Your task to perform on an android device: Open Google Maps Image 0: 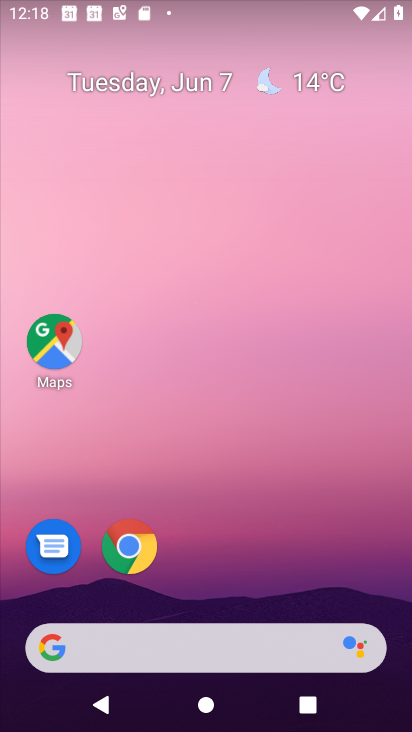
Step 0: click (77, 336)
Your task to perform on an android device: Open Google Maps Image 1: 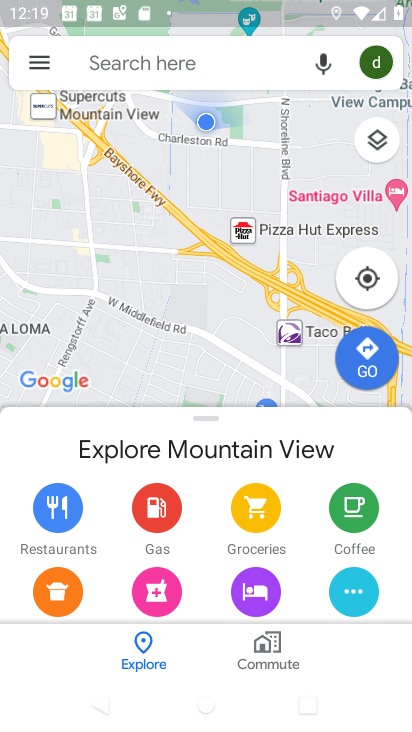
Step 1: task complete